Your task to perform on an android device: toggle data saver in the chrome app Image 0: 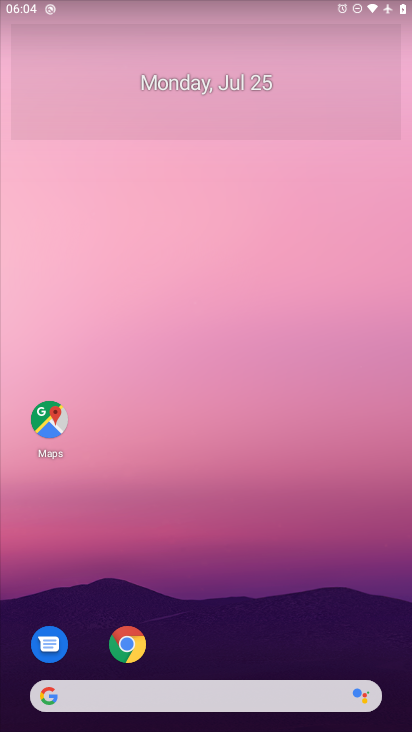
Step 0: press home button
Your task to perform on an android device: toggle data saver in the chrome app Image 1: 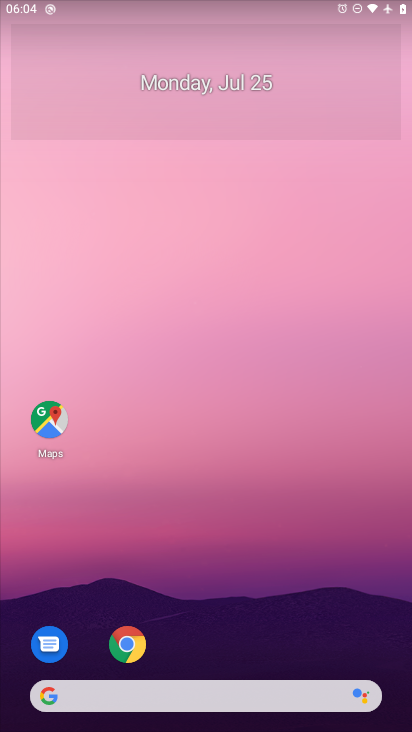
Step 1: drag from (250, 649) to (224, 112)
Your task to perform on an android device: toggle data saver in the chrome app Image 2: 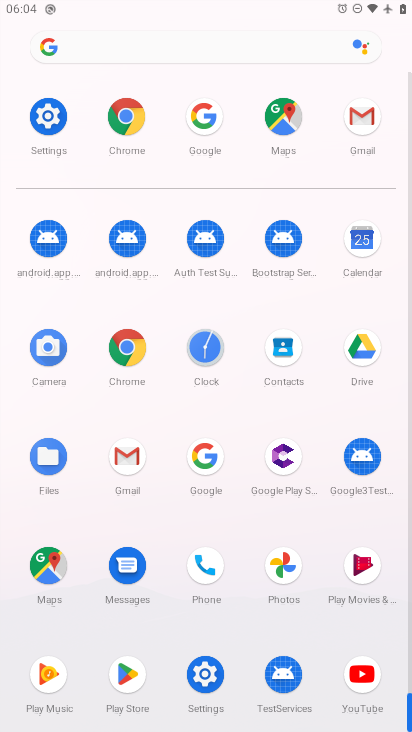
Step 2: click (120, 124)
Your task to perform on an android device: toggle data saver in the chrome app Image 3: 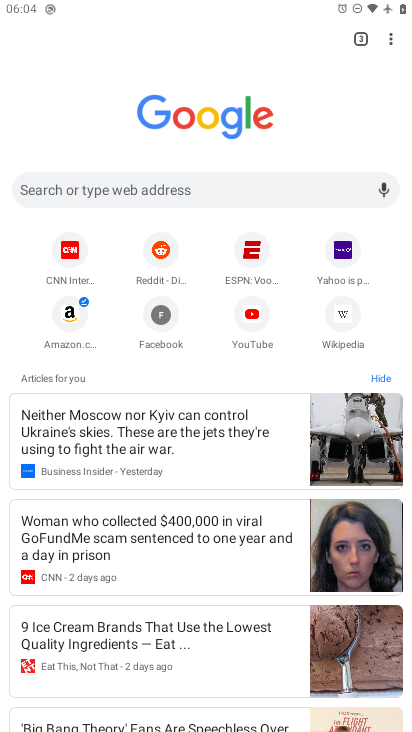
Step 3: drag from (393, 39) to (239, 334)
Your task to perform on an android device: toggle data saver in the chrome app Image 4: 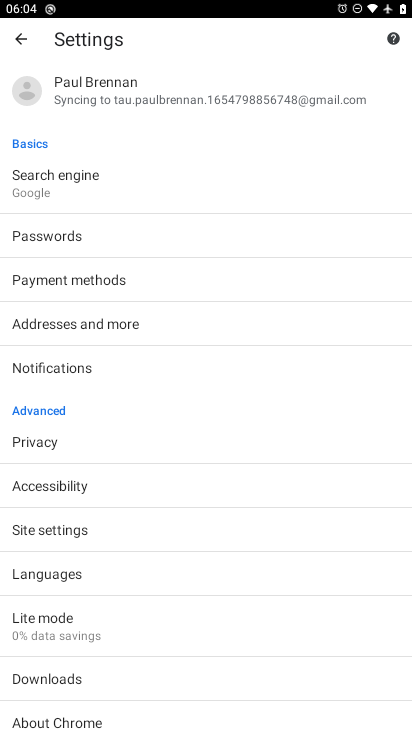
Step 4: click (62, 630)
Your task to perform on an android device: toggle data saver in the chrome app Image 5: 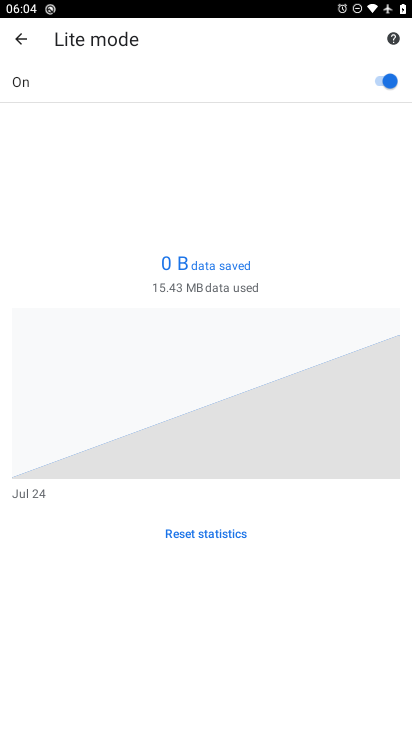
Step 5: click (390, 79)
Your task to perform on an android device: toggle data saver in the chrome app Image 6: 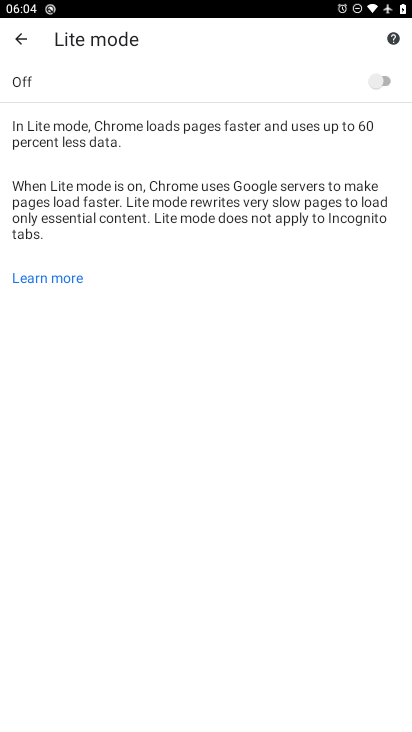
Step 6: task complete